Your task to perform on an android device: Go to Android settings Image 0: 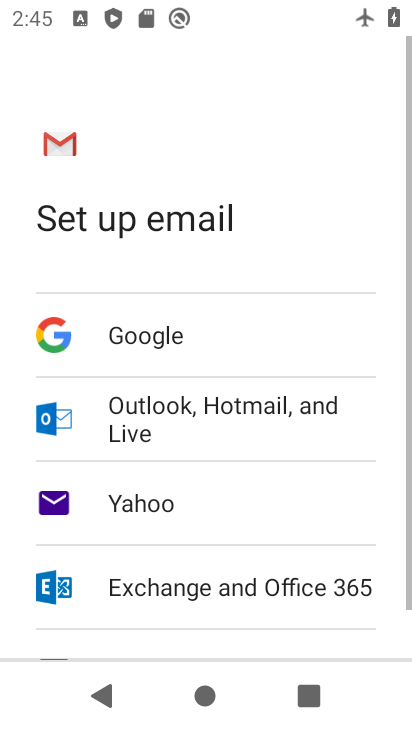
Step 0: press back button
Your task to perform on an android device: Go to Android settings Image 1: 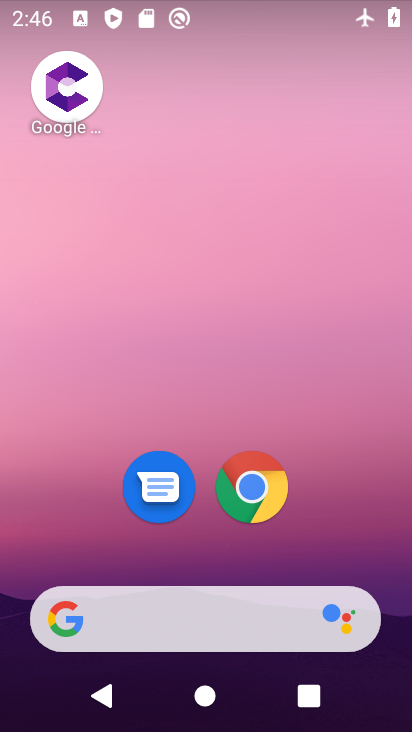
Step 1: drag from (214, 562) to (219, 181)
Your task to perform on an android device: Go to Android settings Image 2: 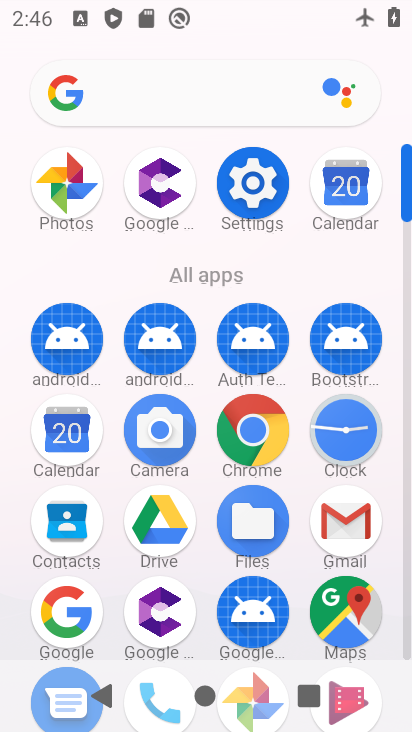
Step 2: click (263, 188)
Your task to perform on an android device: Go to Android settings Image 3: 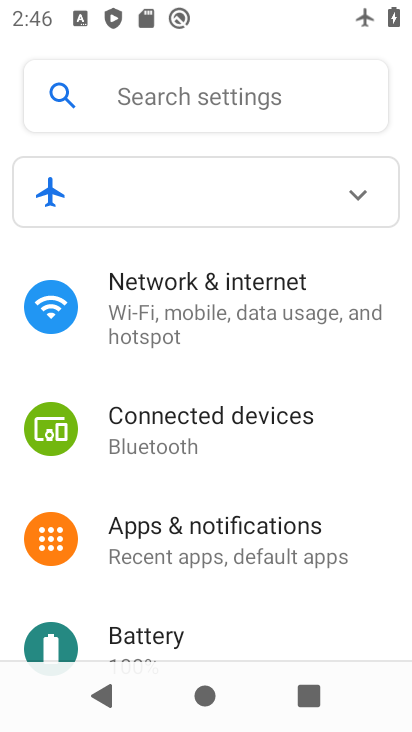
Step 3: task complete